Your task to perform on an android device: turn off location Image 0: 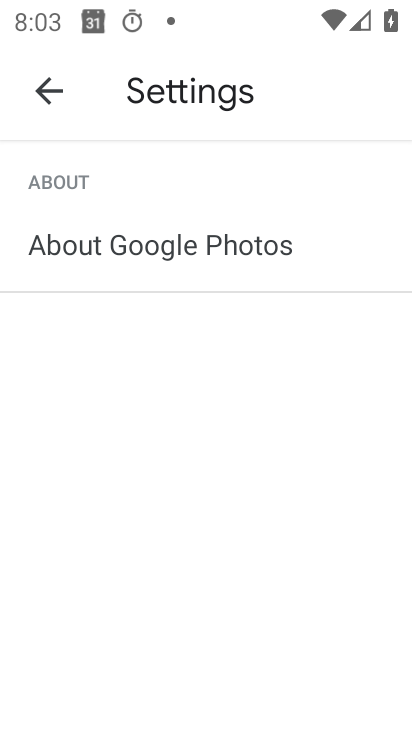
Step 0: press home button
Your task to perform on an android device: turn off location Image 1: 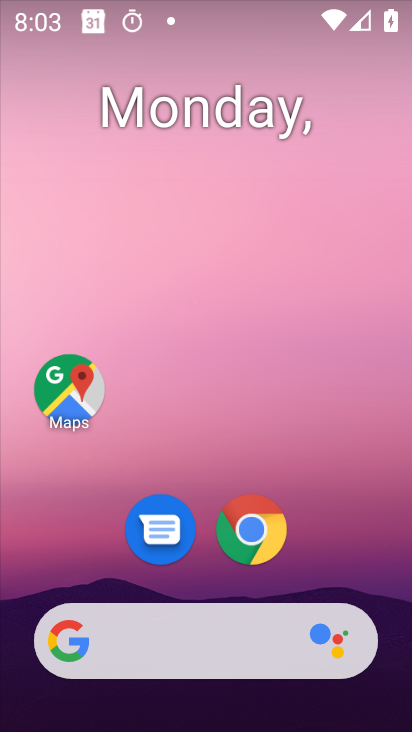
Step 1: drag from (35, 592) to (195, 171)
Your task to perform on an android device: turn off location Image 2: 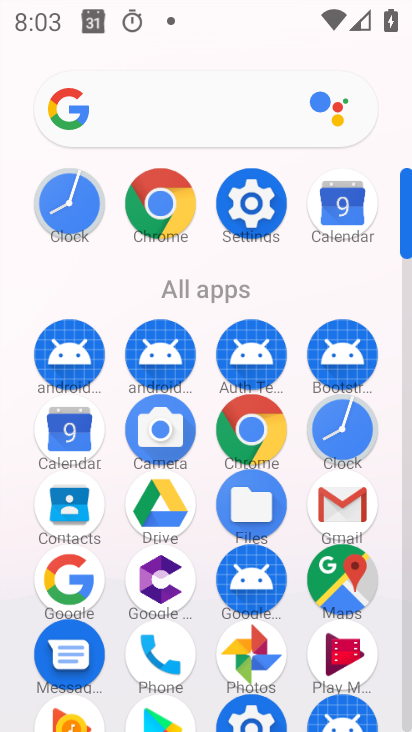
Step 2: click (270, 197)
Your task to perform on an android device: turn off location Image 3: 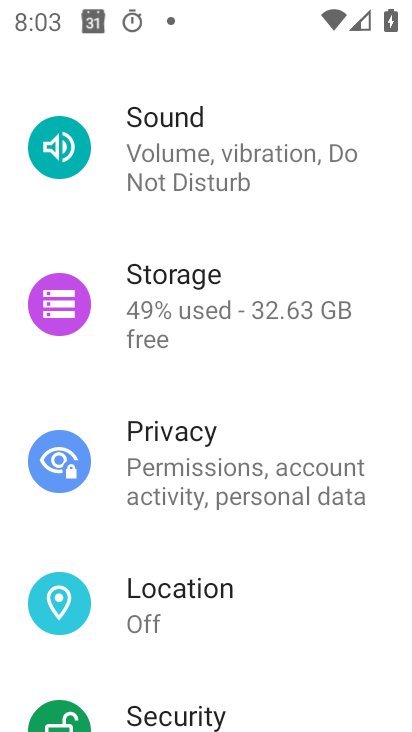
Step 3: click (157, 595)
Your task to perform on an android device: turn off location Image 4: 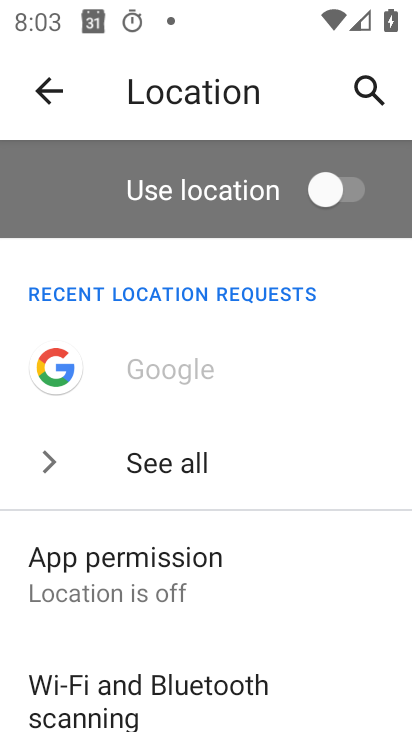
Step 4: task complete